Your task to perform on an android device: install app "Booking.com: Hotels and more" Image 0: 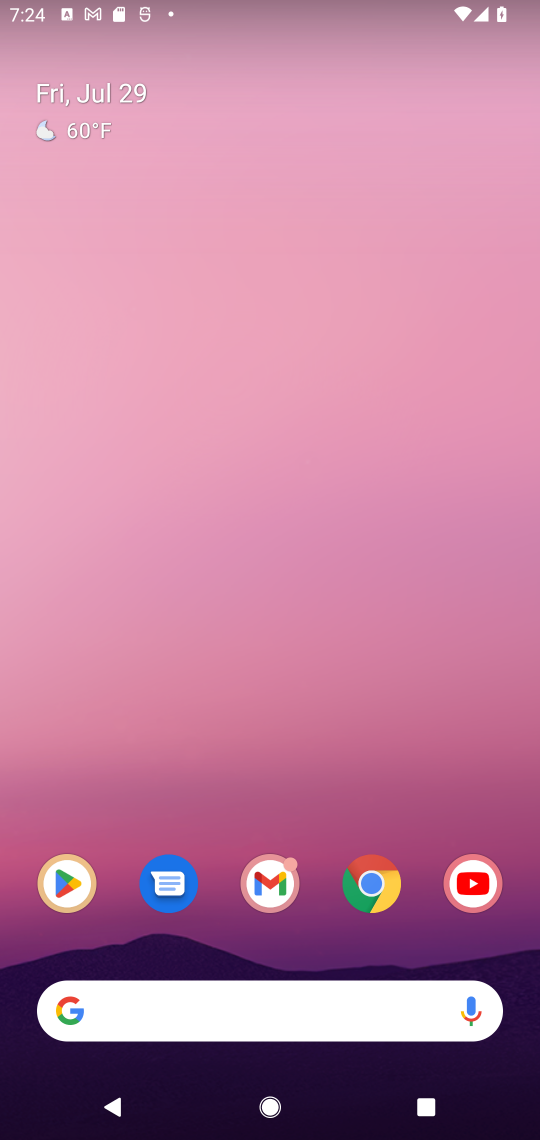
Step 0: click (77, 897)
Your task to perform on an android device: install app "Booking.com: Hotels and more" Image 1: 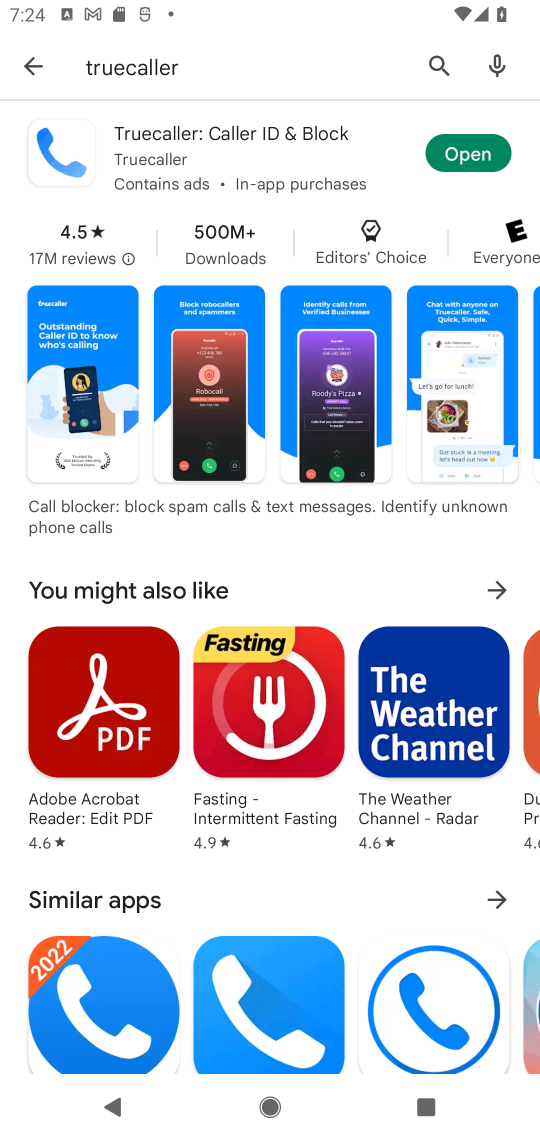
Step 1: click (420, 67)
Your task to perform on an android device: install app "Booking.com: Hotels and more" Image 2: 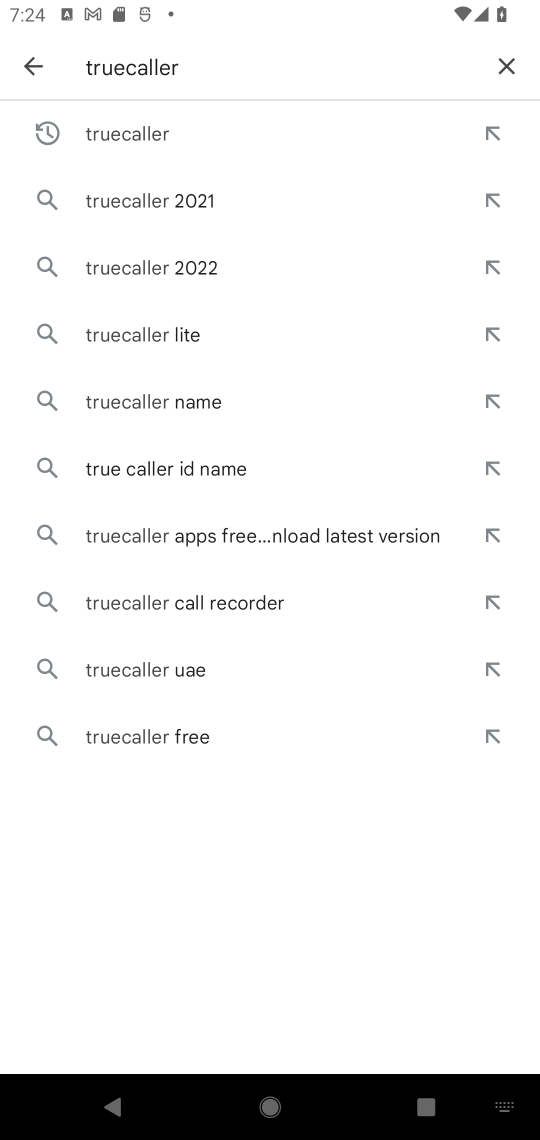
Step 2: click (513, 63)
Your task to perform on an android device: install app "Booking.com: Hotels and more" Image 3: 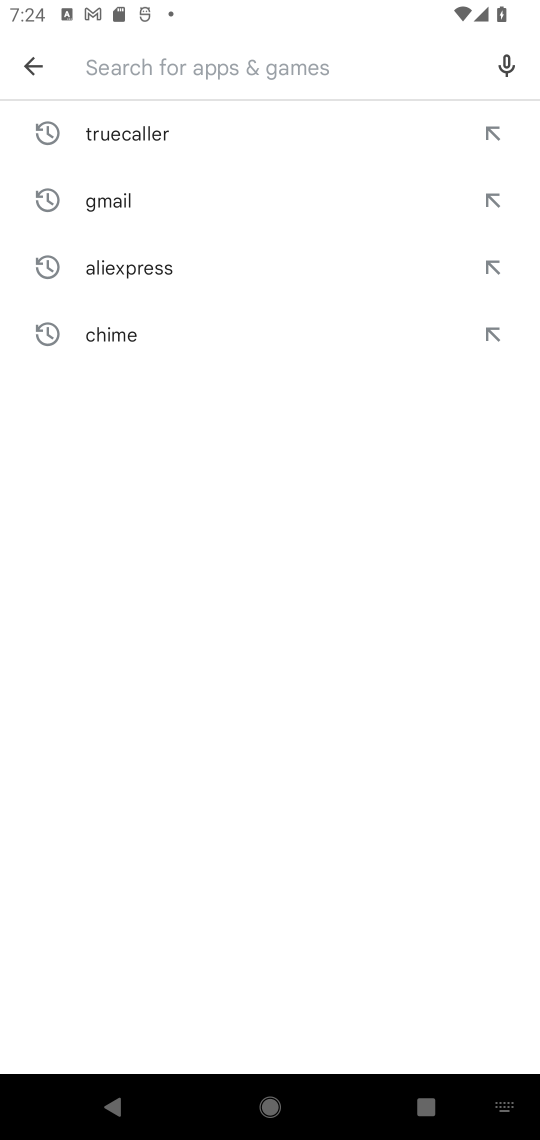
Step 3: click (122, 52)
Your task to perform on an android device: install app "Booking.com: Hotels and more" Image 4: 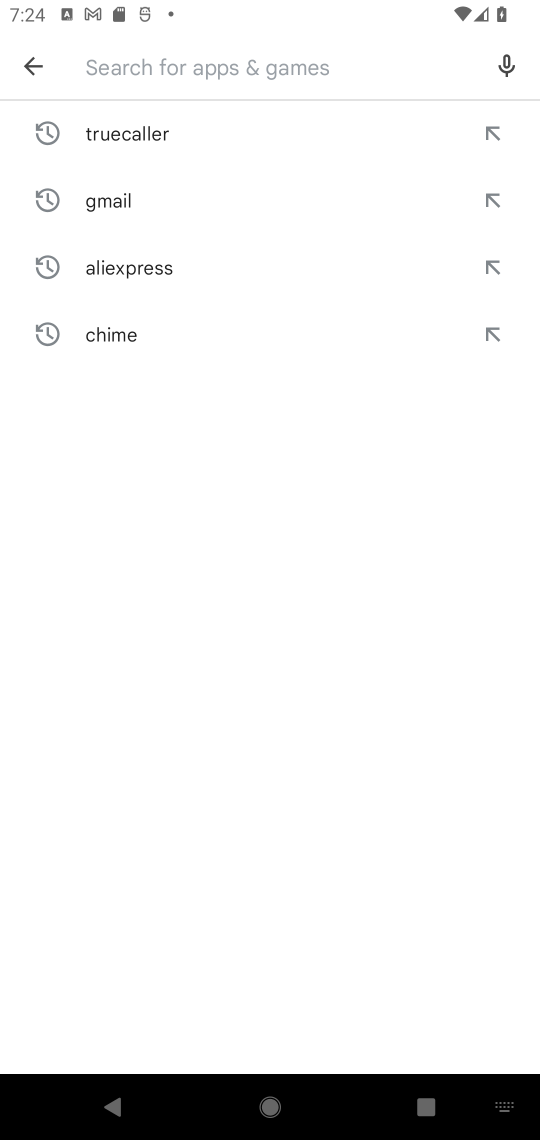
Step 4: click (127, 58)
Your task to perform on an android device: install app "Booking.com: Hotels and more" Image 5: 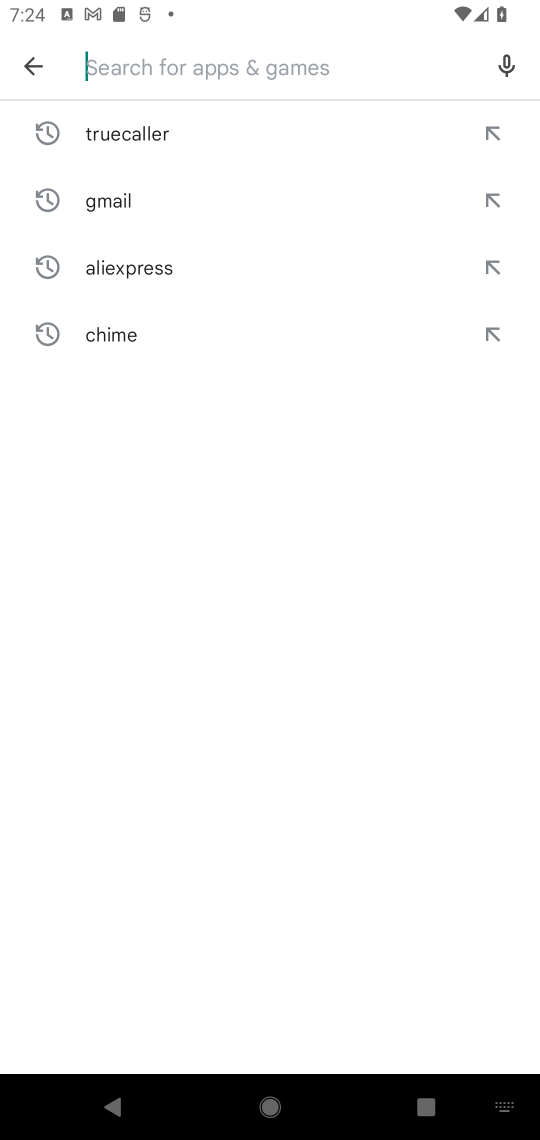
Step 5: type "booking.com"
Your task to perform on an android device: install app "Booking.com: Hotels and more" Image 6: 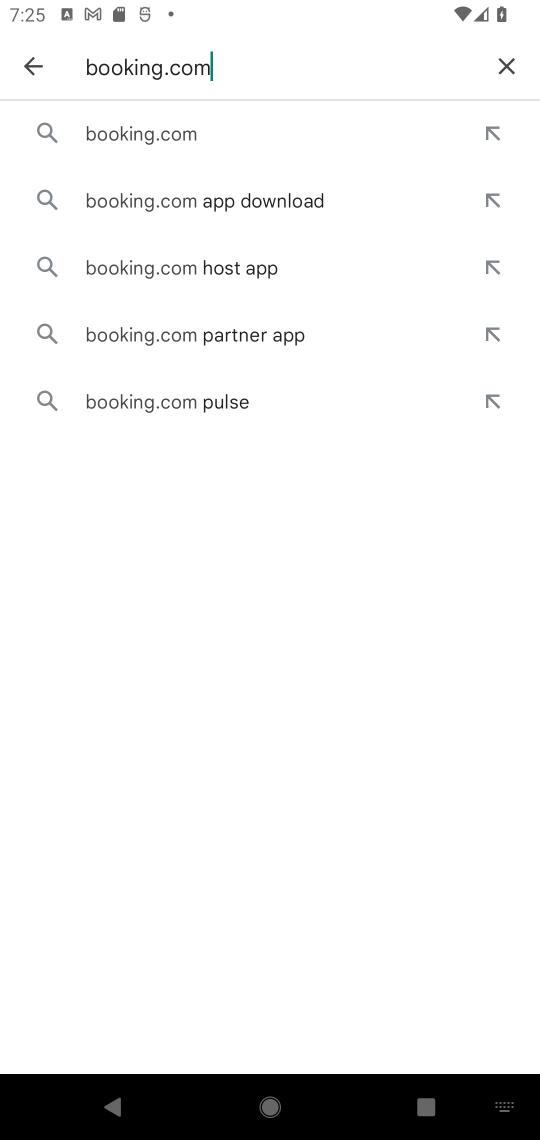
Step 6: click (202, 137)
Your task to perform on an android device: install app "Booking.com: Hotels and more" Image 7: 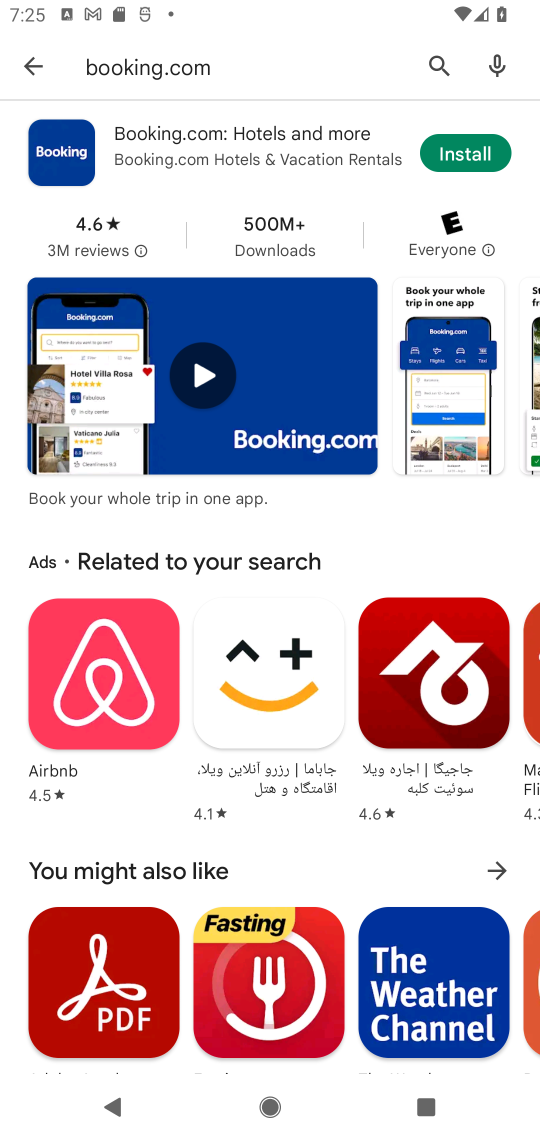
Step 7: click (453, 157)
Your task to perform on an android device: install app "Booking.com: Hotels and more" Image 8: 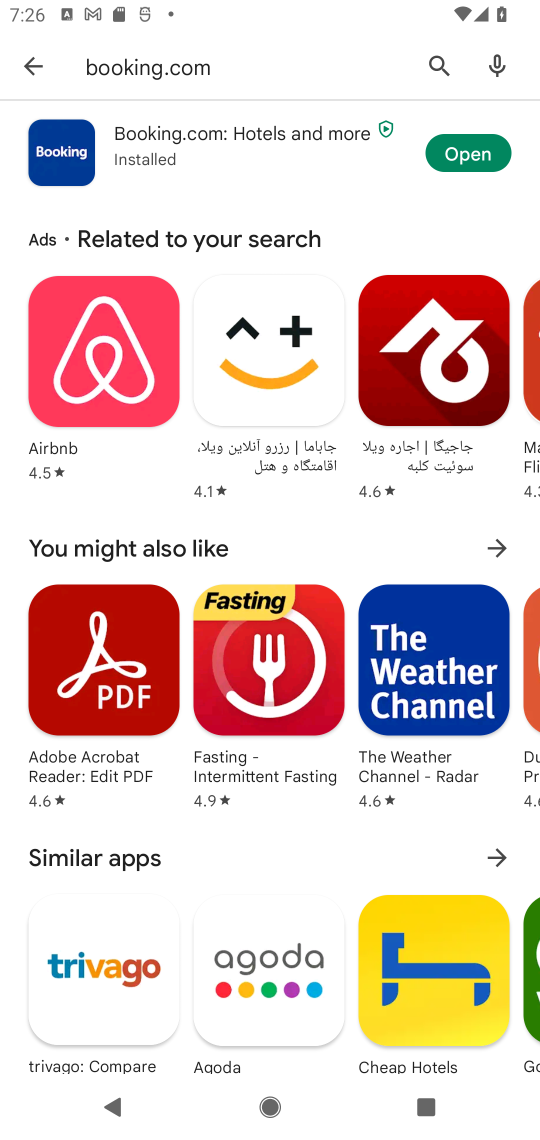
Step 8: task complete